Your task to perform on an android device: check battery use Image 0: 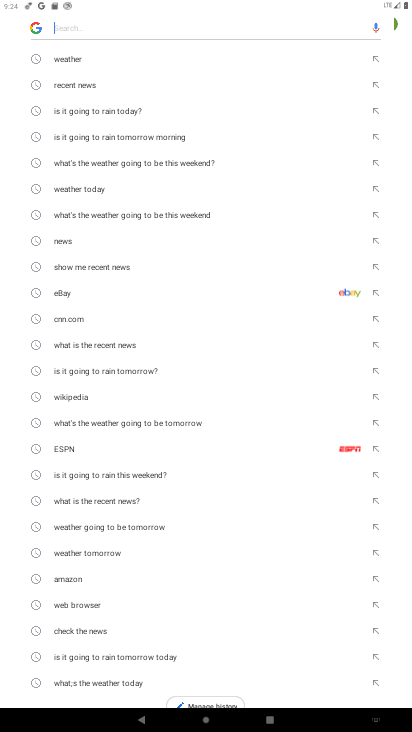
Step 0: press home button
Your task to perform on an android device: check battery use Image 1: 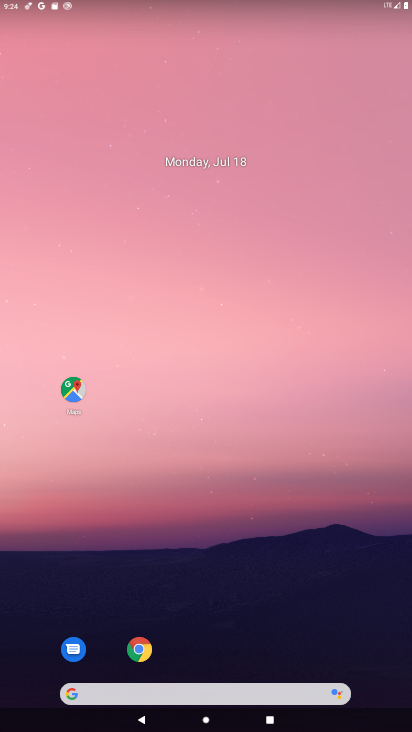
Step 1: drag from (160, 694) to (230, 177)
Your task to perform on an android device: check battery use Image 2: 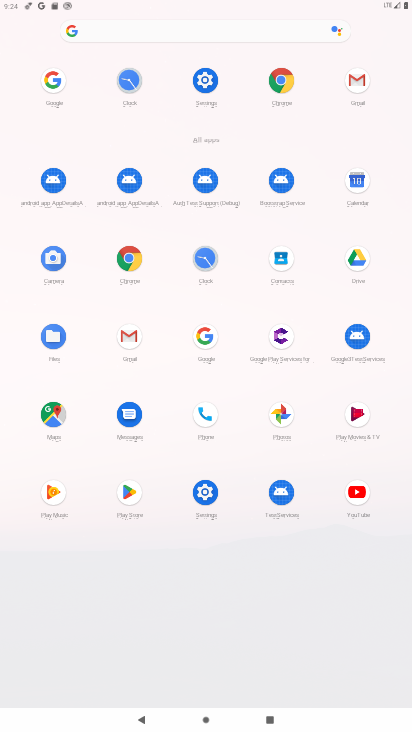
Step 2: click (201, 506)
Your task to perform on an android device: check battery use Image 3: 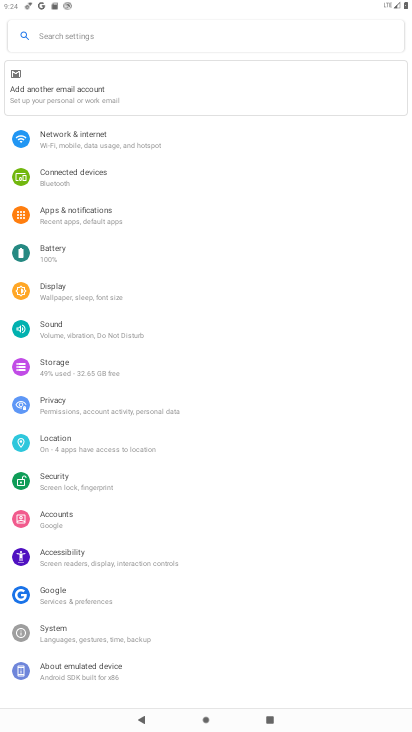
Step 3: click (51, 255)
Your task to perform on an android device: check battery use Image 4: 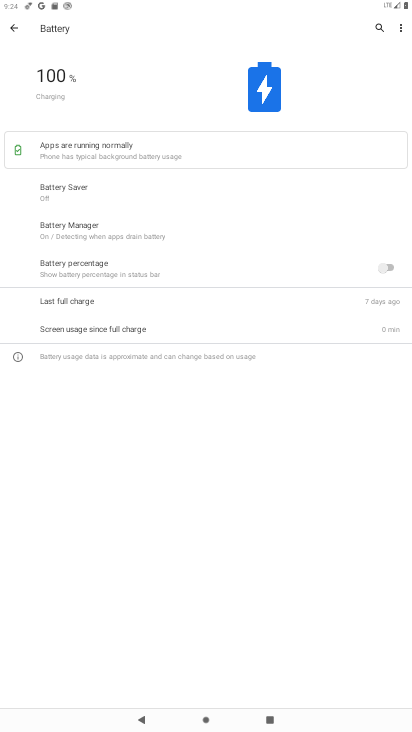
Step 4: click (400, 28)
Your task to perform on an android device: check battery use Image 5: 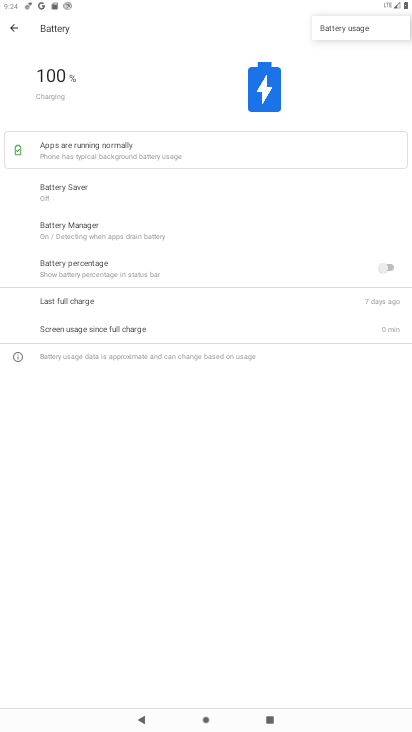
Step 5: click (337, 28)
Your task to perform on an android device: check battery use Image 6: 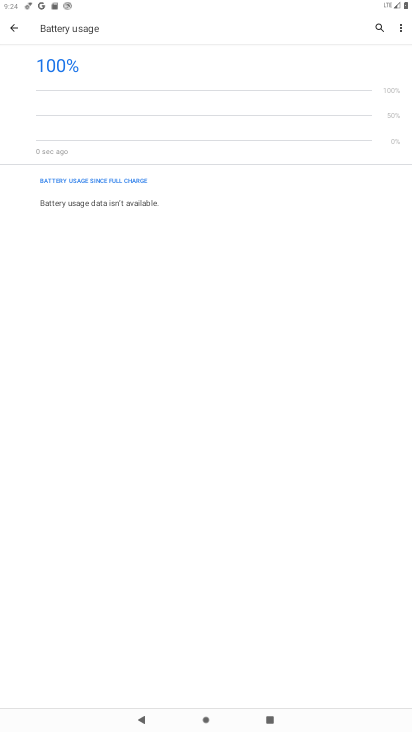
Step 6: task complete